Your task to perform on an android device: Go to Google Image 0: 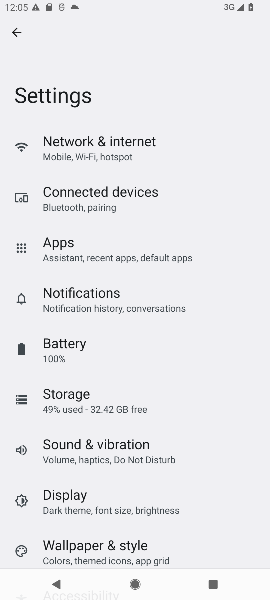
Step 0: press home button
Your task to perform on an android device: Go to Google Image 1: 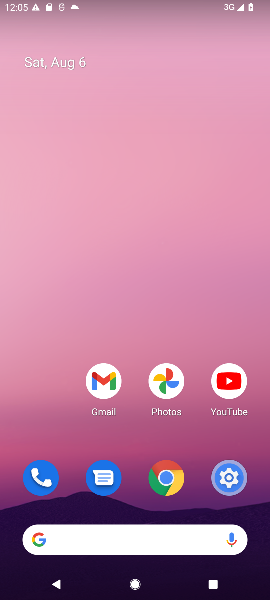
Step 1: drag from (130, 519) to (121, 183)
Your task to perform on an android device: Go to Google Image 2: 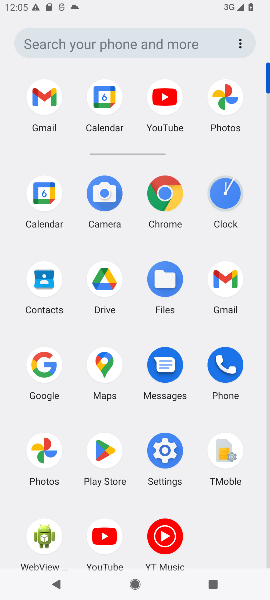
Step 2: click (43, 364)
Your task to perform on an android device: Go to Google Image 3: 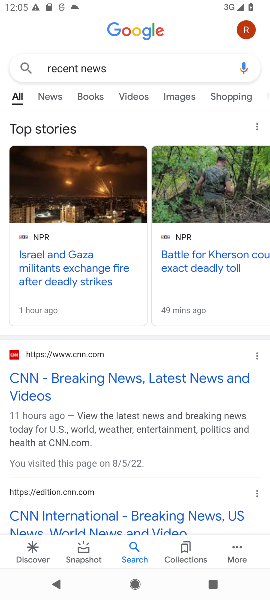
Step 3: click (113, 69)
Your task to perform on an android device: Go to Google Image 4: 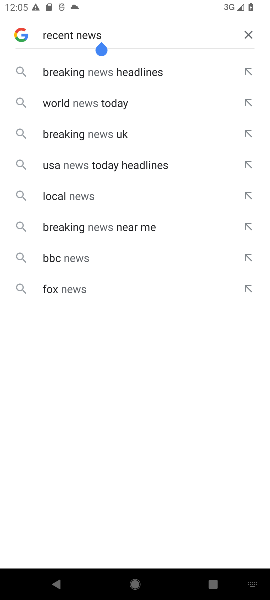
Step 4: click (249, 35)
Your task to perform on an android device: Go to Google Image 5: 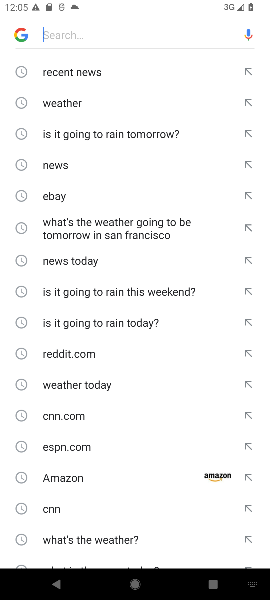
Step 5: task complete